Your task to perform on an android device: toggle notification dots Image 0: 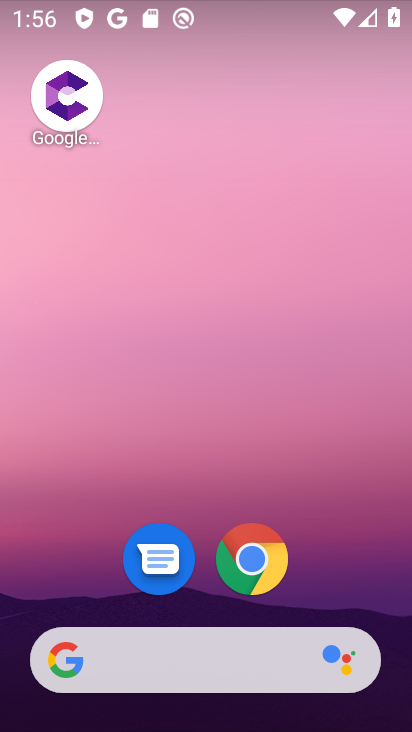
Step 0: drag from (53, 602) to (189, 1)
Your task to perform on an android device: toggle notification dots Image 1: 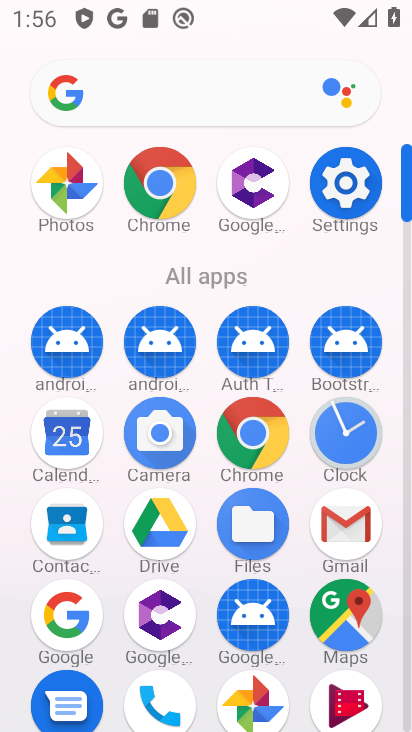
Step 1: click (351, 171)
Your task to perform on an android device: toggle notification dots Image 2: 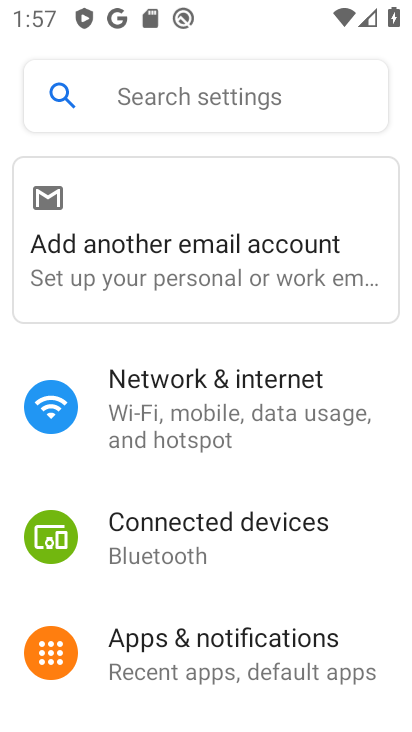
Step 2: click (217, 658)
Your task to perform on an android device: toggle notification dots Image 3: 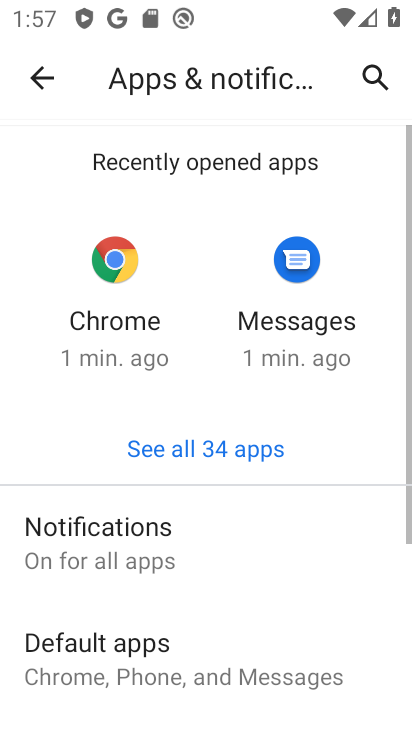
Step 3: click (140, 549)
Your task to perform on an android device: toggle notification dots Image 4: 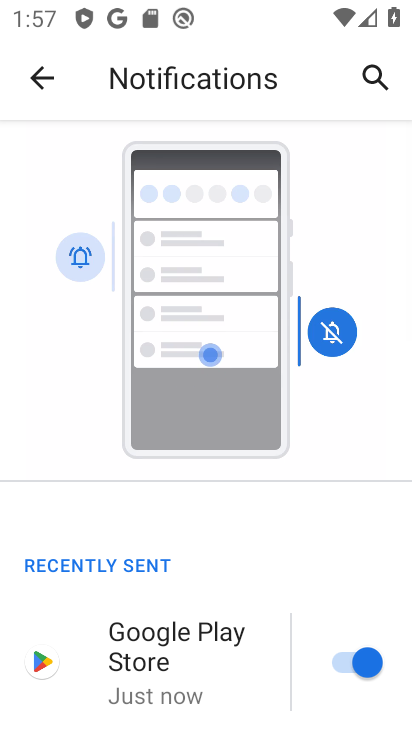
Step 4: drag from (174, 694) to (263, 42)
Your task to perform on an android device: toggle notification dots Image 5: 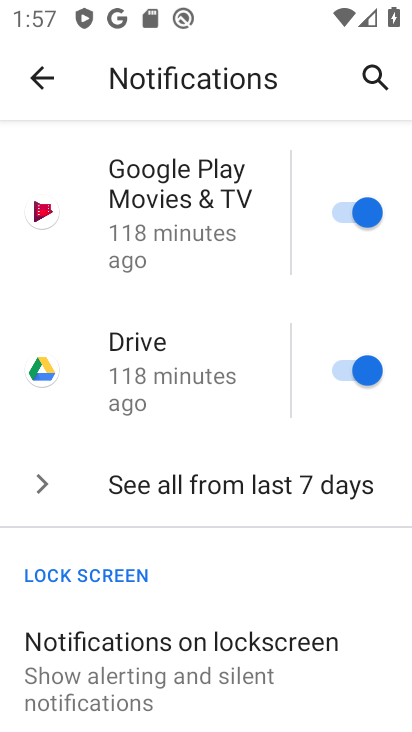
Step 5: drag from (183, 654) to (260, 254)
Your task to perform on an android device: toggle notification dots Image 6: 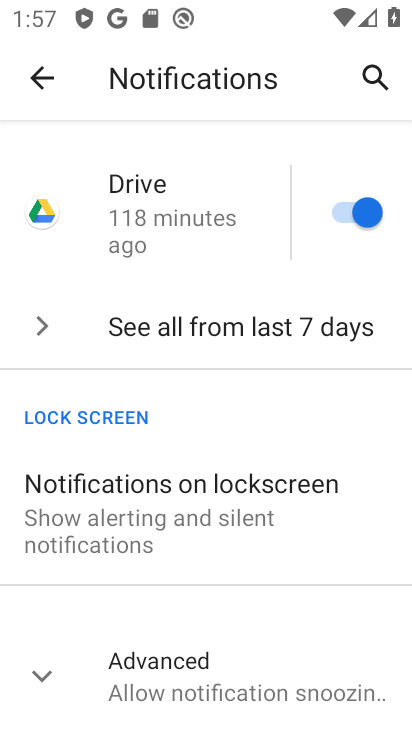
Step 6: click (216, 669)
Your task to perform on an android device: toggle notification dots Image 7: 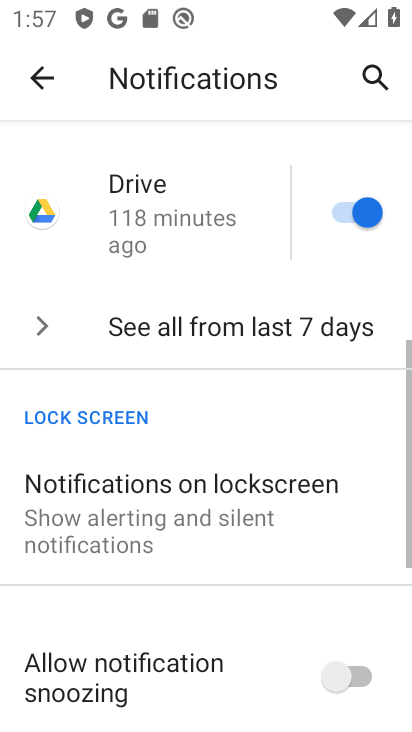
Step 7: drag from (132, 612) to (224, 55)
Your task to perform on an android device: toggle notification dots Image 8: 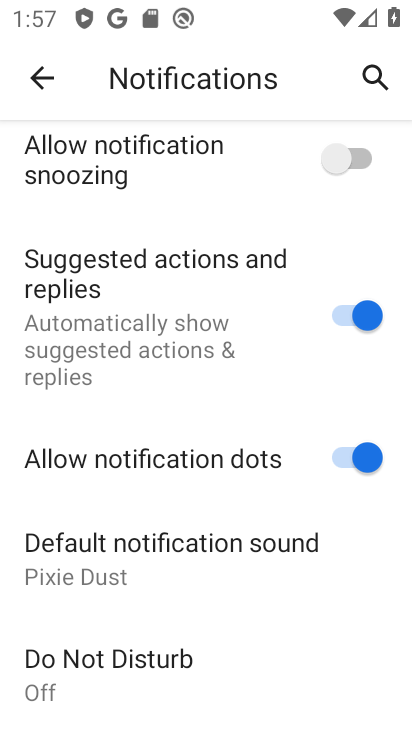
Step 8: click (365, 463)
Your task to perform on an android device: toggle notification dots Image 9: 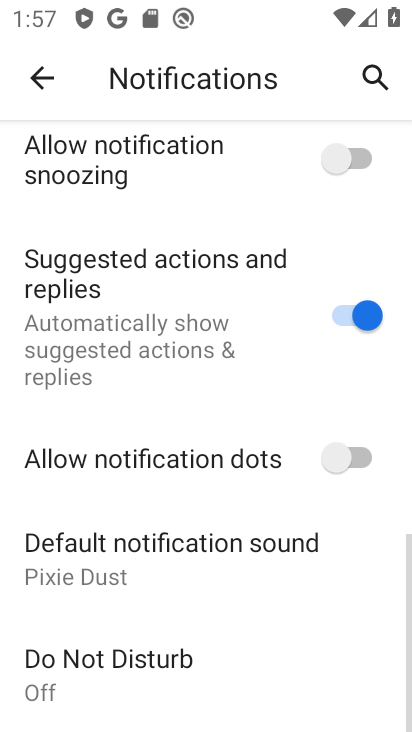
Step 9: task complete